Your task to perform on an android device: Search for seafood restaurants on Google Maps Image 0: 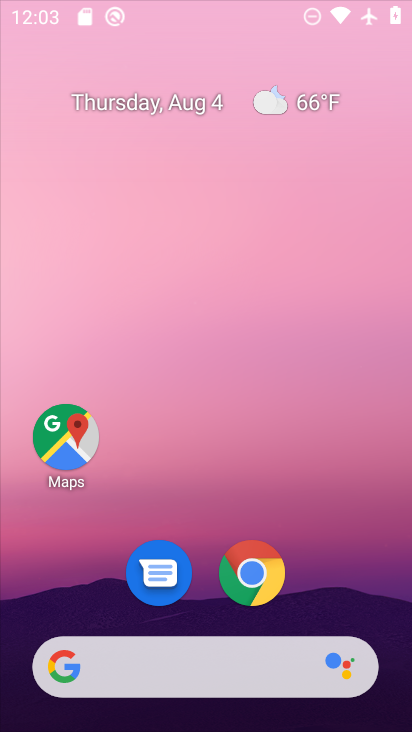
Step 0: drag from (345, 571) to (274, 102)
Your task to perform on an android device: Search for seafood restaurants on Google Maps Image 1: 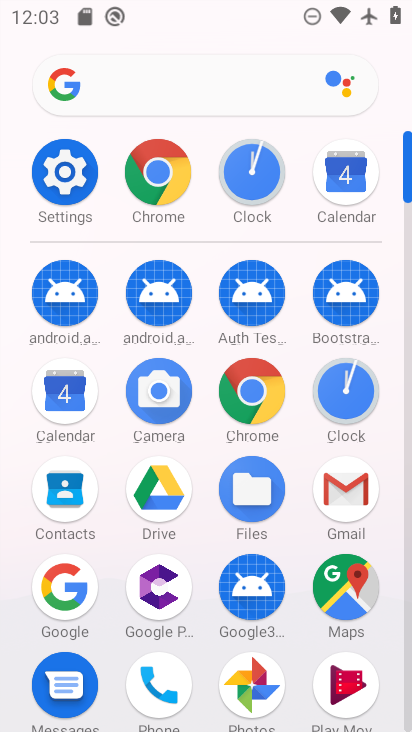
Step 1: click (353, 595)
Your task to perform on an android device: Search for seafood restaurants on Google Maps Image 2: 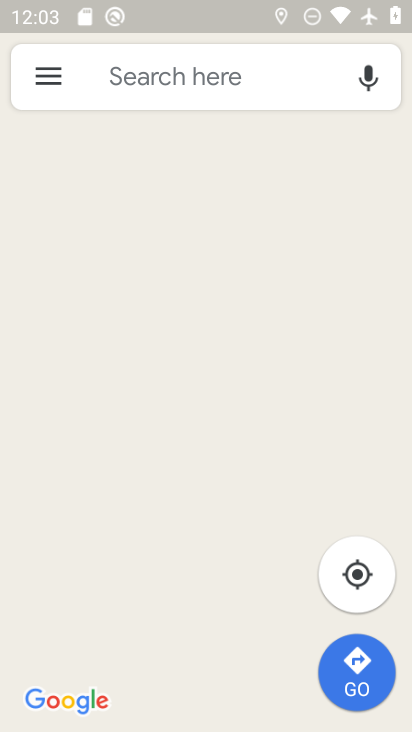
Step 2: click (204, 92)
Your task to perform on an android device: Search for seafood restaurants on Google Maps Image 3: 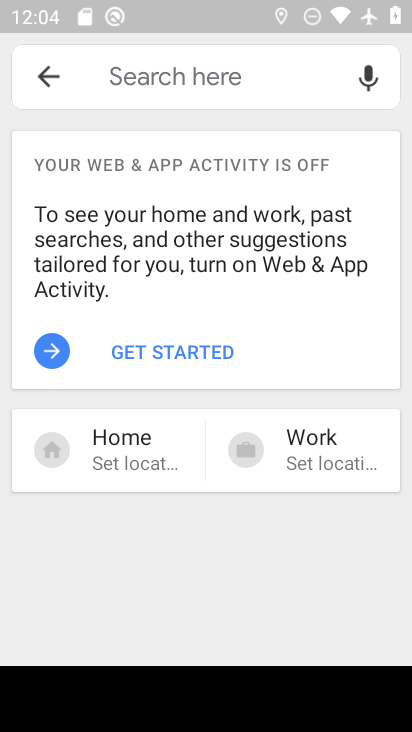
Step 3: type "seafood restaurants"
Your task to perform on an android device: Search for seafood restaurants on Google Maps Image 4: 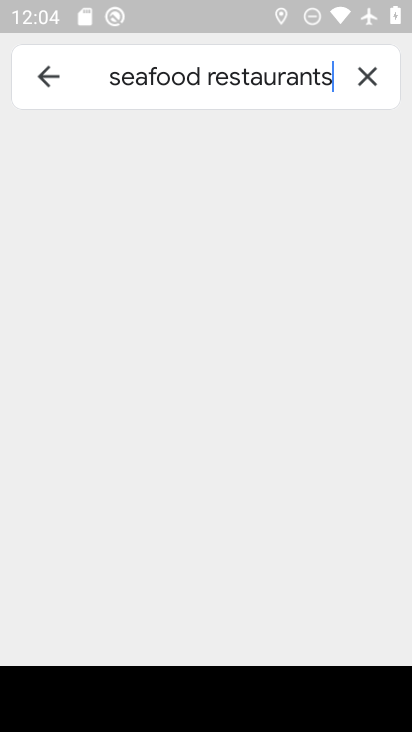
Step 4: press enter
Your task to perform on an android device: Search for seafood restaurants on Google Maps Image 5: 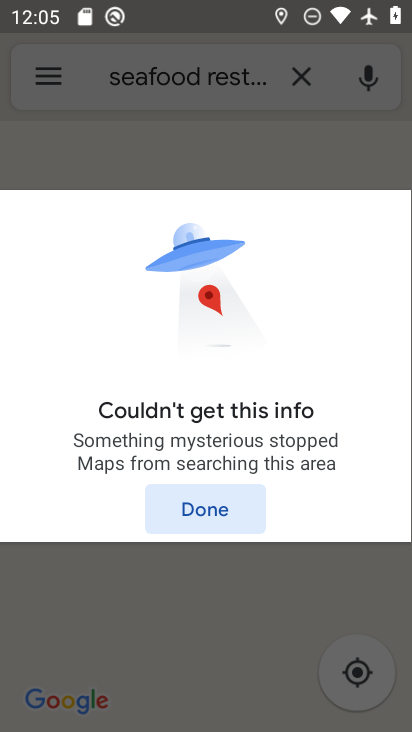
Step 5: task complete